Your task to perform on an android device: Open notification settings Image 0: 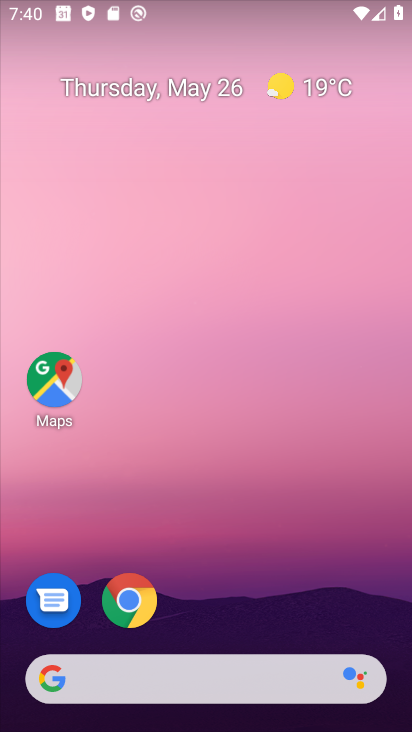
Step 0: drag from (293, 729) to (219, 100)
Your task to perform on an android device: Open notification settings Image 1: 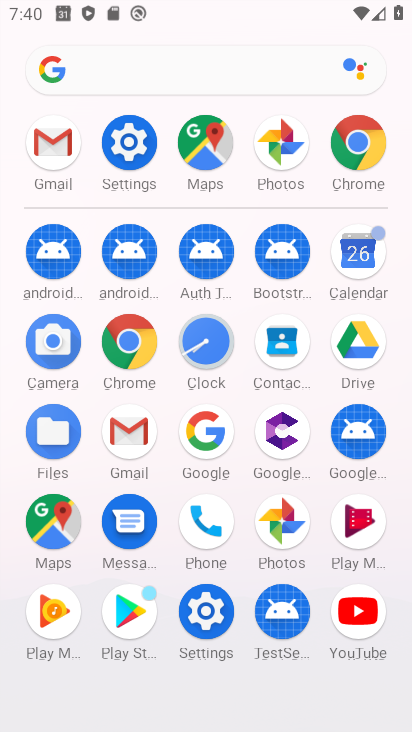
Step 1: click (132, 134)
Your task to perform on an android device: Open notification settings Image 2: 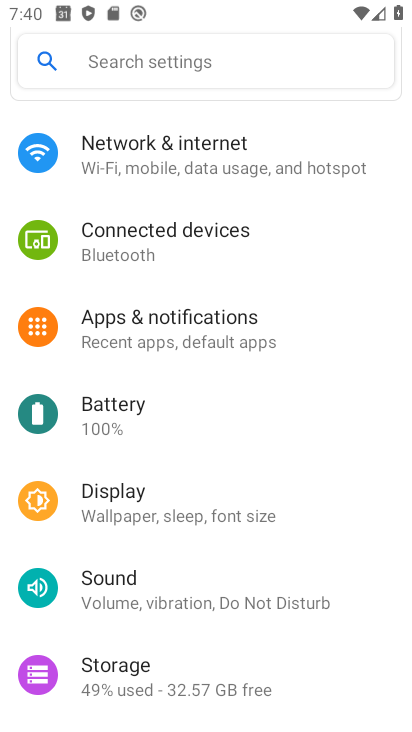
Step 2: click (204, 65)
Your task to perform on an android device: Open notification settings Image 3: 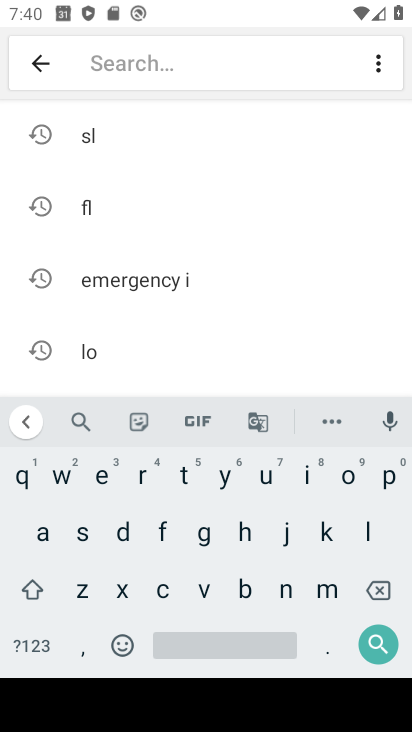
Step 3: click (280, 588)
Your task to perform on an android device: Open notification settings Image 4: 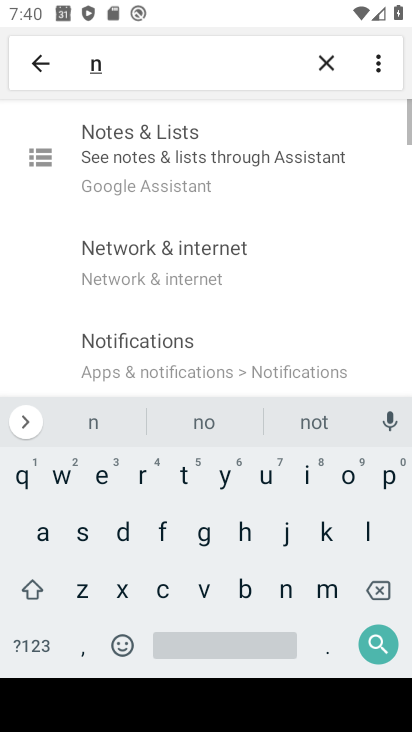
Step 4: click (343, 479)
Your task to perform on an android device: Open notification settings Image 5: 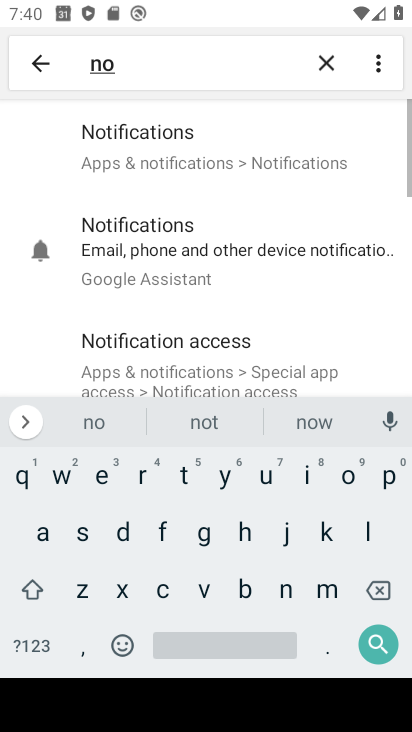
Step 5: click (149, 168)
Your task to perform on an android device: Open notification settings Image 6: 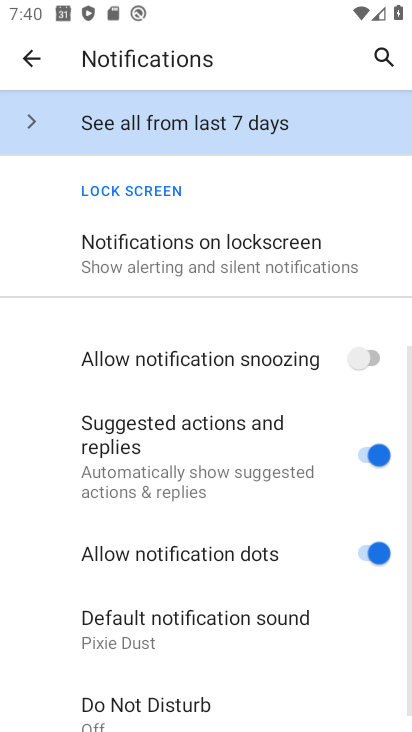
Step 6: click (163, 256)
Your task to perform on an android device: Open notification settings Image 7: 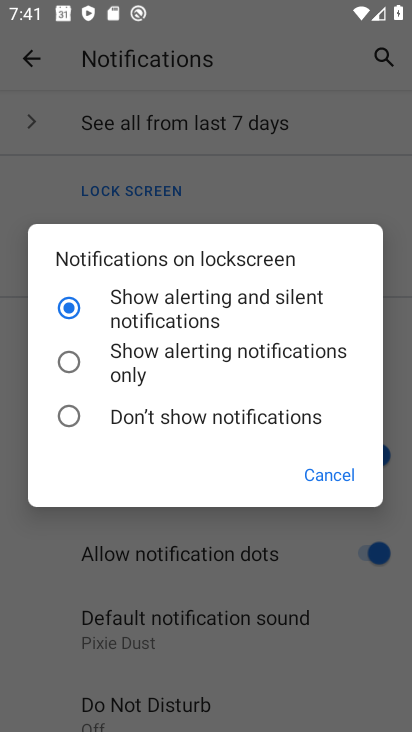
Step 7: task complete